Your task to perform on an android device: set the stopwatch Image 0: 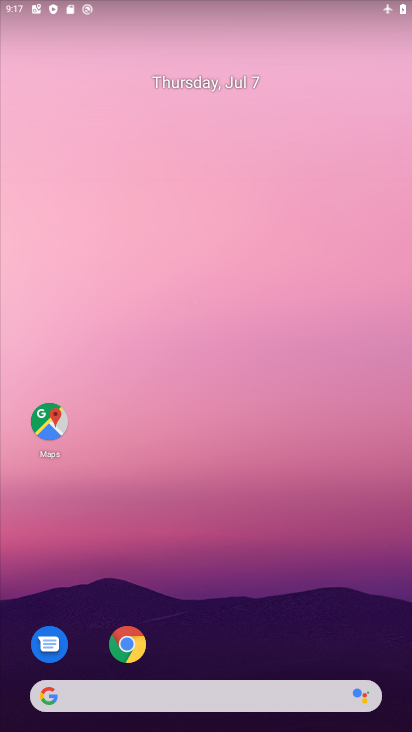
Step 0: drag from (290, 616) to (275, 104)
Your task to perform on an android device: set the stopwatch Image 1: 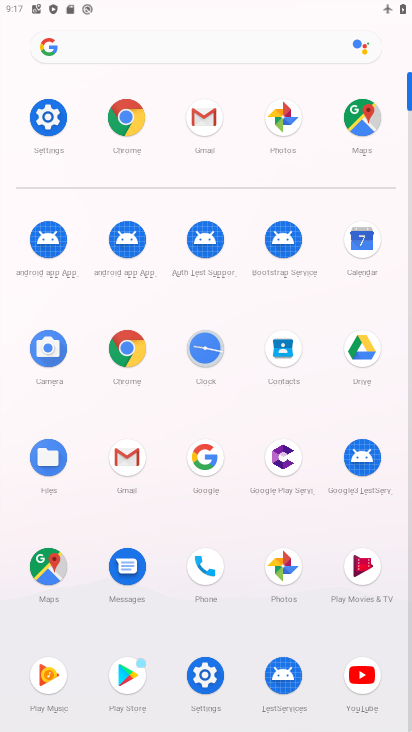
Step 1: click (205, 356)
Your task to perform on an android device: set the stopwatch Image 2: 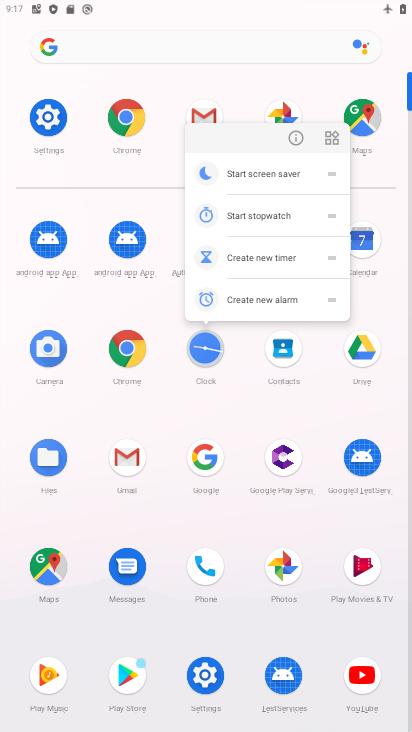
Step 2: click (205, 351)
Your task to perform on an android device: set the stopwatch Image 3: 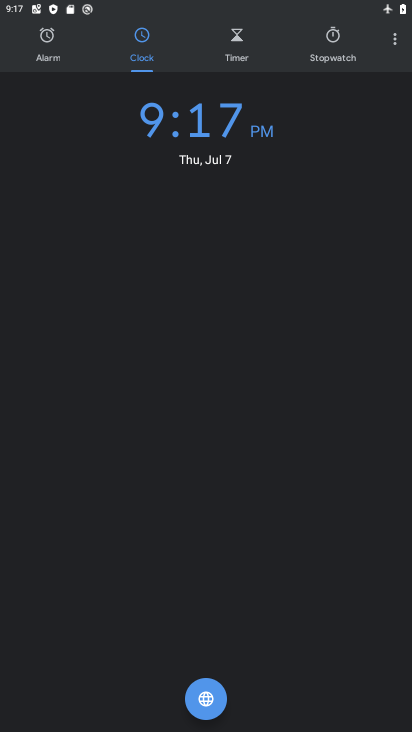
Step 3: click (331, 48)
Your task to perform on an android device: set the stopwatch Image 4: 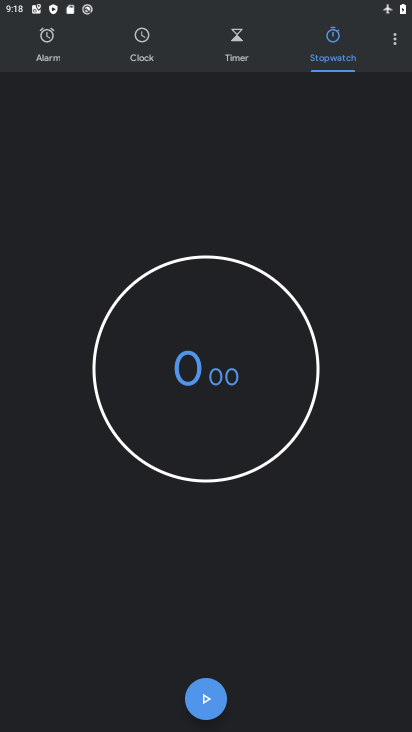
Step 4: click (203, 701)
Your task to perform on an android device: set the stopwatch Image 5: 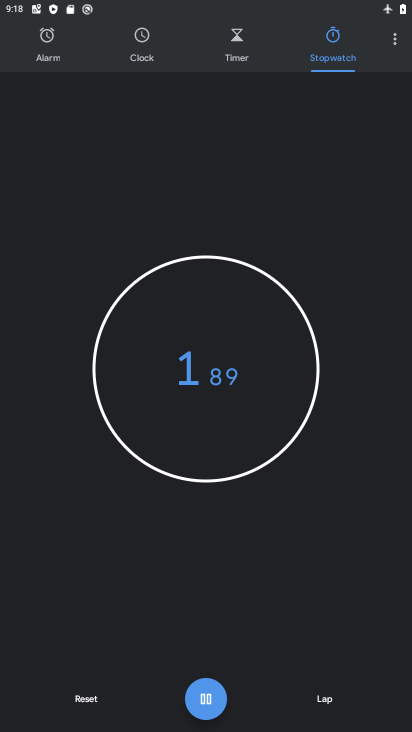
Step 5: click (203, 701)
Your task to perform on an android device: set the stopwatch Image 6: 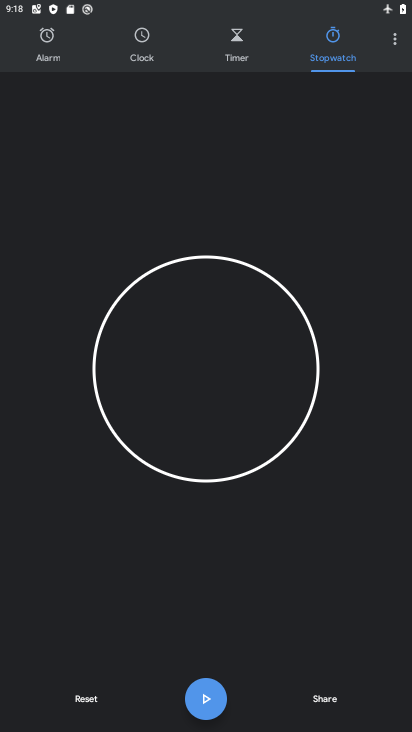
Step 6: task complete